Your task to perform on an android device: What's on my calendar tomorrow? Image 0: 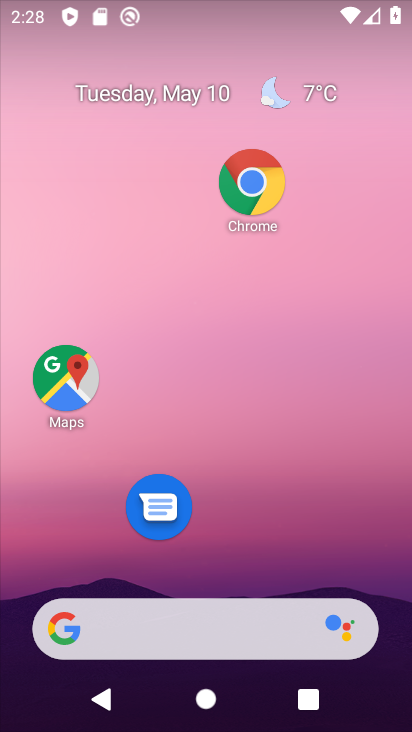
Step 0: drag from (312, 567) to (294, 83)
Your task to perform on an android device: What's on my calendar tomorrow? Image 1: 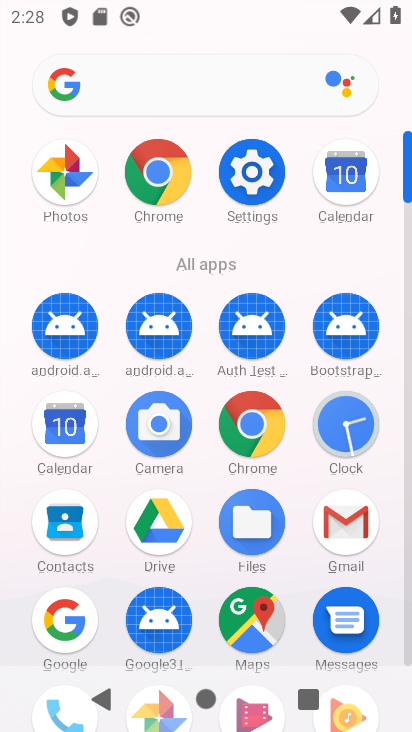
Step 1: click (54, 467)
Your task to perform on an android device: What's on my calendar tomorrow? Image 2: 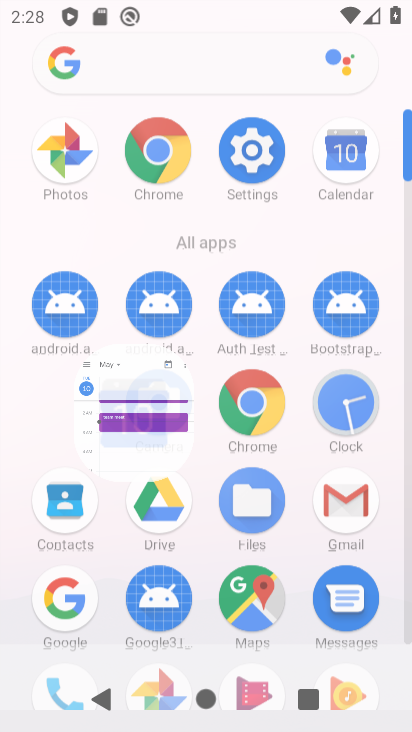
Step 2: click (54, 467)
Your task to perform on an android device: What's on my calendar tomorrow? Image 3: 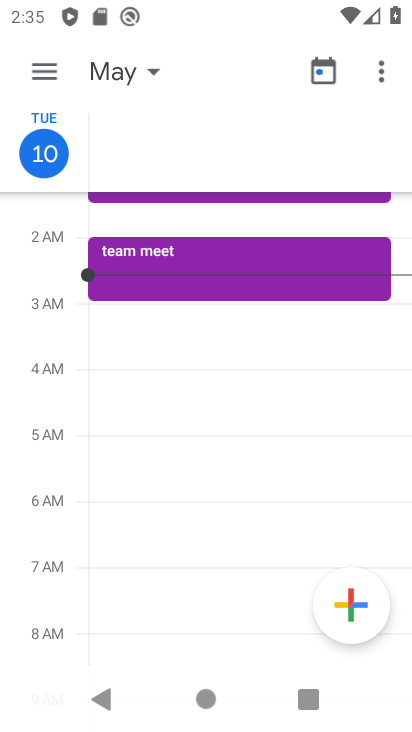
Step 3: task complete